Your task to perform on an android device: turn on the 12-hour format for clock Image 0: 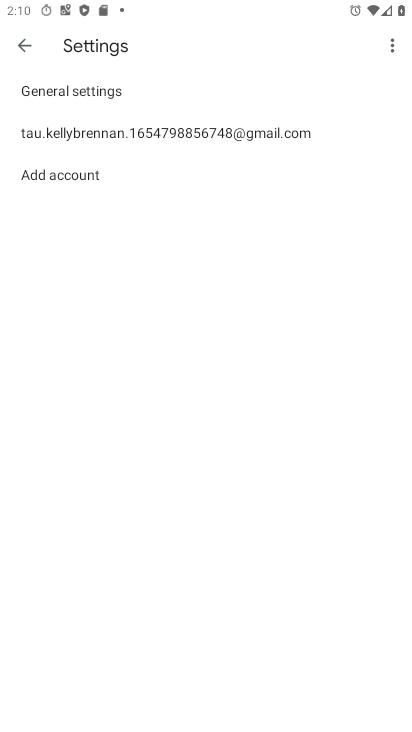
Step 0: press home button
Your task to perform on an android device: turn on the 12-hour format for clock Image 1: 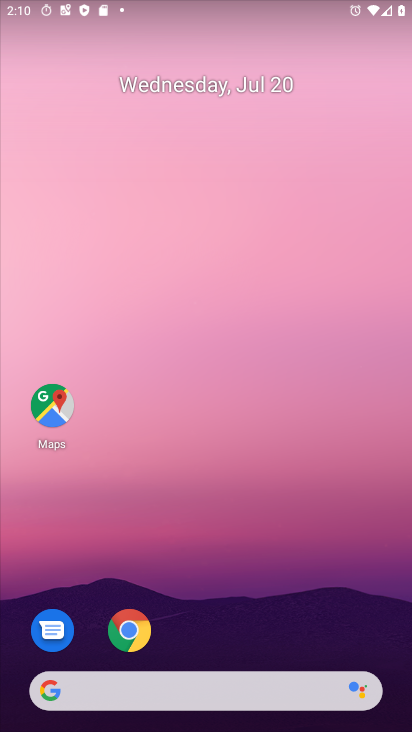
Step 1: drag from (227, 695) to (335, 58)
Your task to perform on an android device: turn on the 12-hour format for clock Image 2: 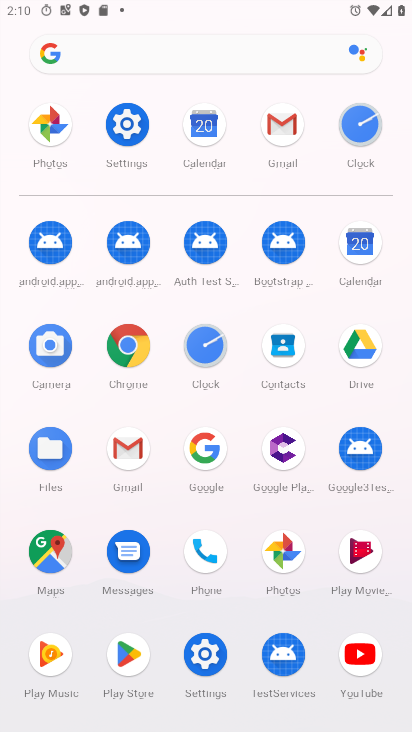
Step 2: click (360, 130)
Your task to perform on an android device: turn on the 12-hour format for clock Image 3: 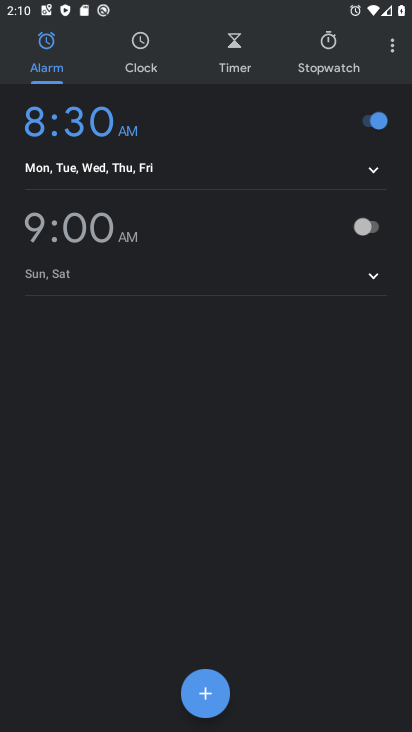
Step 3: click (393, 47)
Your task to perform on an android device: turn on the 12-hour format for clock Image 4: 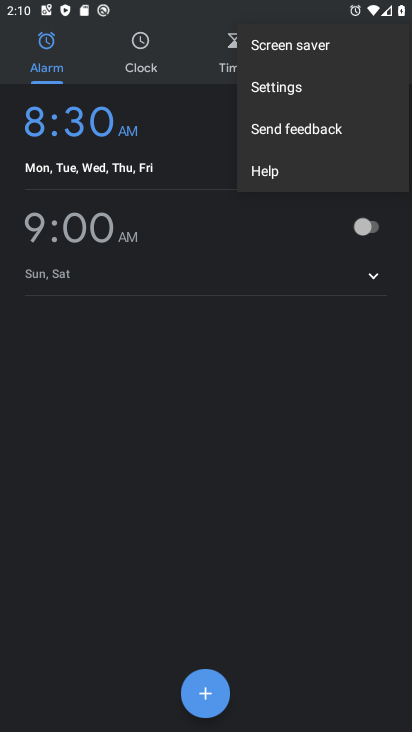
Step 4: click (286, 95)
Your task to perform on an android device: turn on the 12-hour format for clock Image 5: 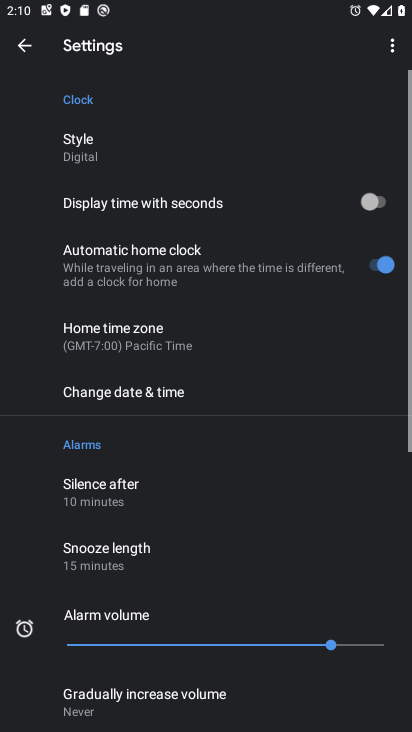
Step 5: drag from (228, 554) to (271, 447)
Your task to perform on an android device: turn on the 12-hour format for clock Image 6: 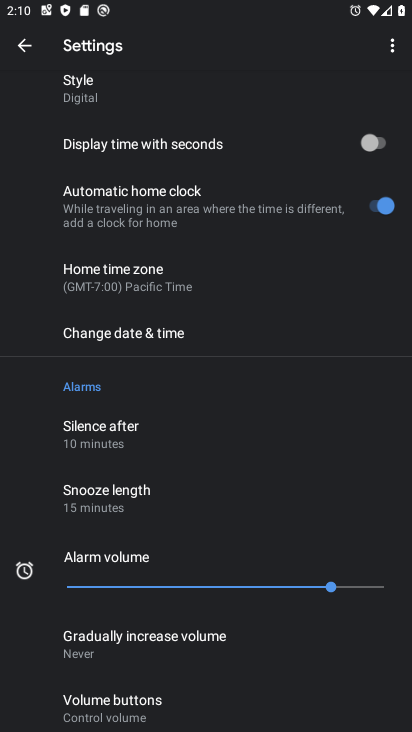
Step 6: click (162, 337)
Your task to perform on an android device: turn on the 12-hour format for clock Image 7: 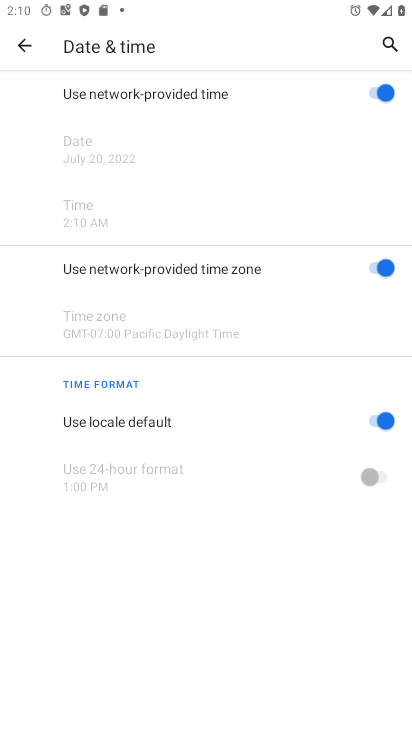
Step 7: task complete